Your task to perform on an android device: Open my contact list Image 0: 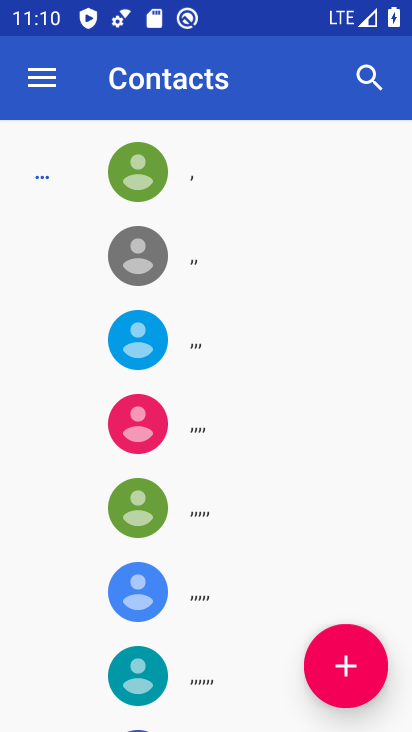
Step 0: task complete